Your task to perform on an android device: toggle wifi Image 0: 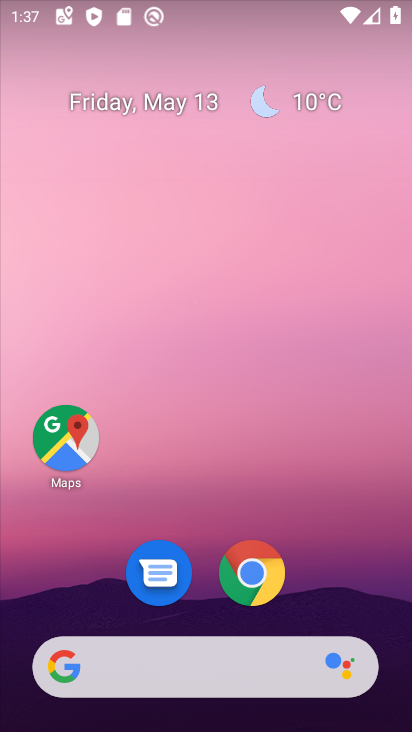
Step 0: drag from (319, 567) to (242, 33)
Your task to perform on an android device: toggle wifi Image 1: 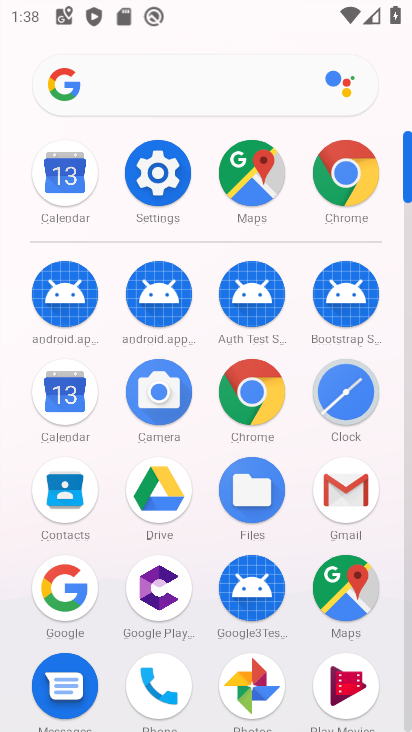
Step 1: click (158, 167)
Your task to perform on an android device: toggle wifi Image 2: 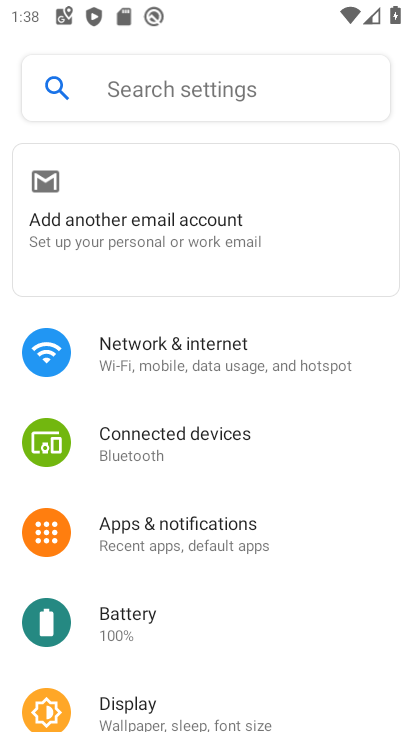
Step 2: click (202, 358)
Your task to perform on an android device: toggle wifi Image 3: 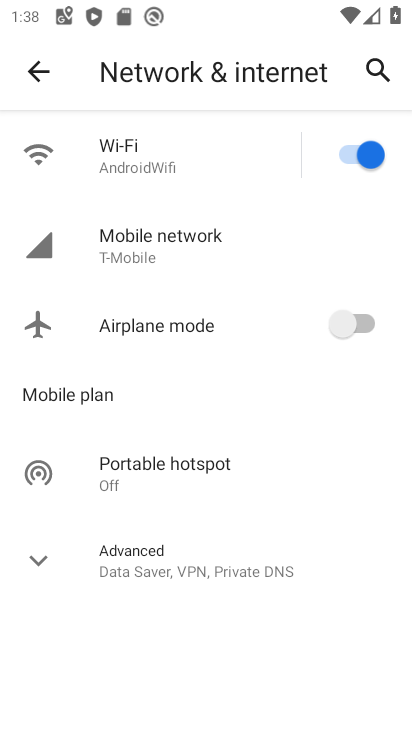
Step 3: task complete